Your task to perform on an android device: Search for vegetarian restaurants on Maps Image 0: 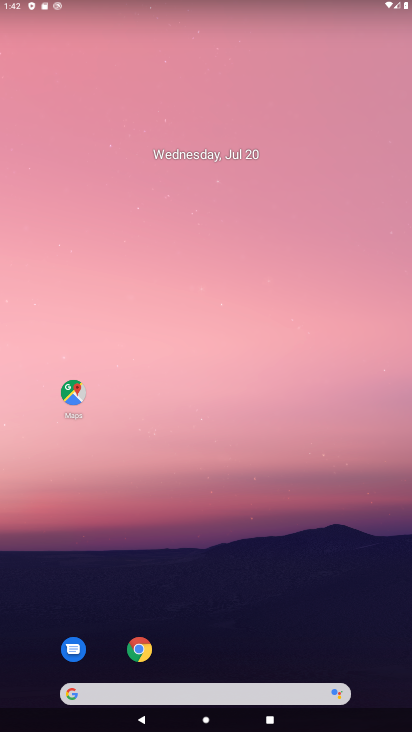
Step 0: click (62, 388)
Your task to perform on an android device: Search for vegetarian restaurants on Maps Image 1: 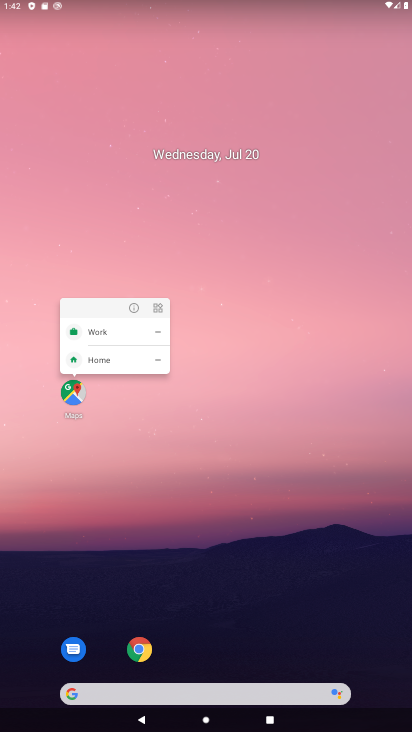
Step 1: click (81, 394)
Your task to perform on an android device: Search for vegetarian restaurants on Maps Image 2: 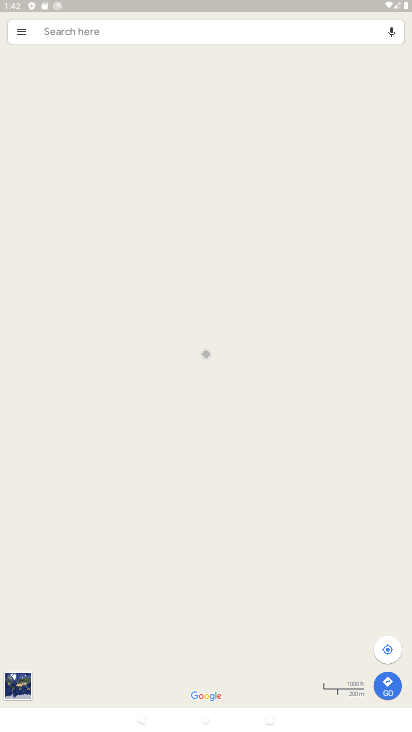
Step 2: click (215, 27)
Your task to perform on an android device: Search for vegetarian restaurants on Maps Image 3: 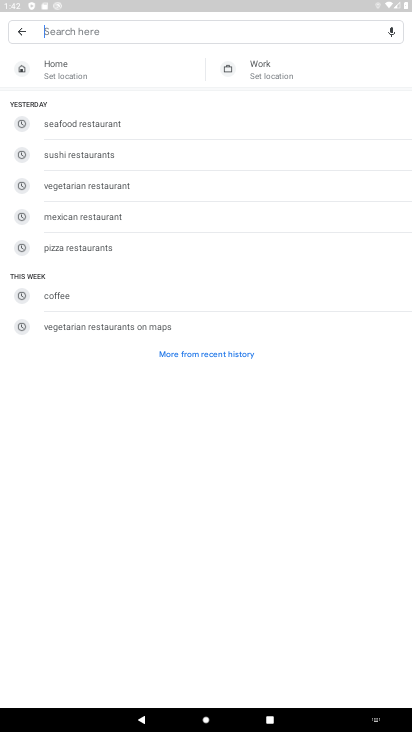
Step 3: type "vegetarian restaurants"
Your task to perform on an android device: Search for vegetarian restaurants on Maps Image 4: 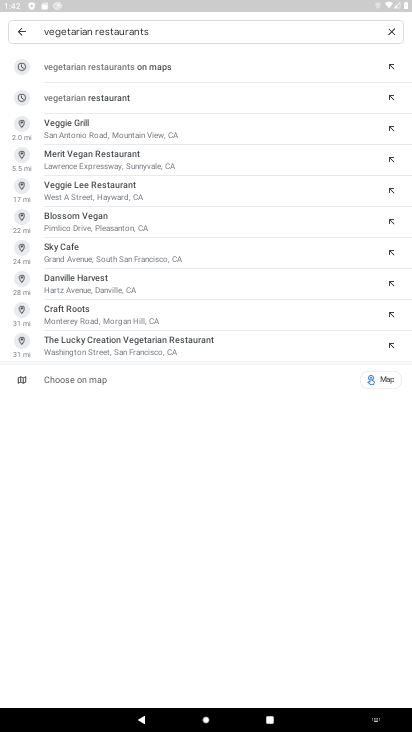
Step 4: click (136, 92)
Your task to perform on an android device: Search for vegetarian restaurants on Maps Image 5: 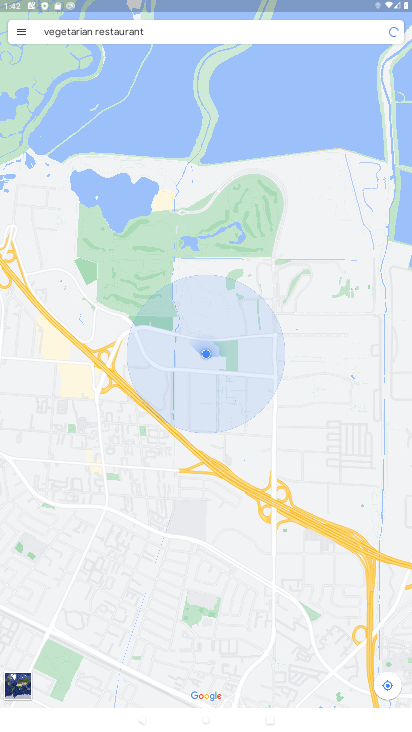
Step 5: task complete